Your task to perform on an android device: remove spam from my inbox in the gmail app Image 0: 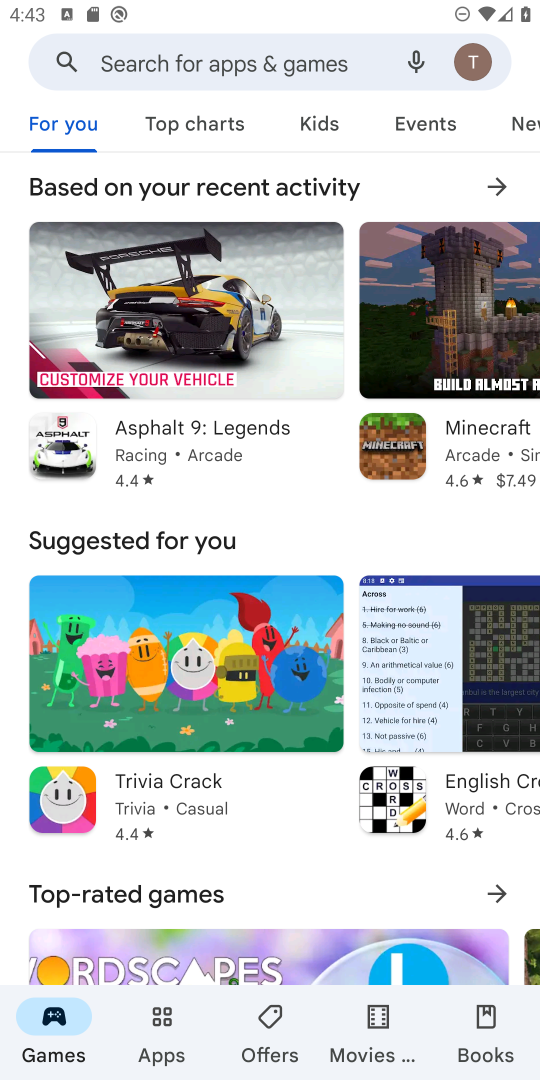
Step 0: press home button
Your task to perform on an android device: remove spam from my inbox in the gmail app Image 1: 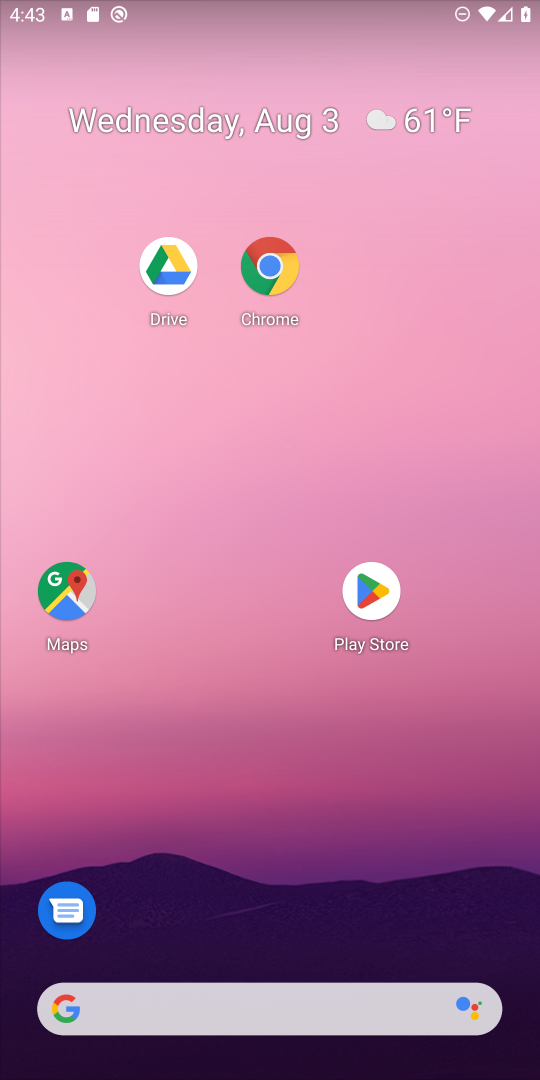
Step 1: drag from (366, 971) to (496, 41)
Your task to perform on an android device: remove spam from my inbox in the gmail app Image 2: 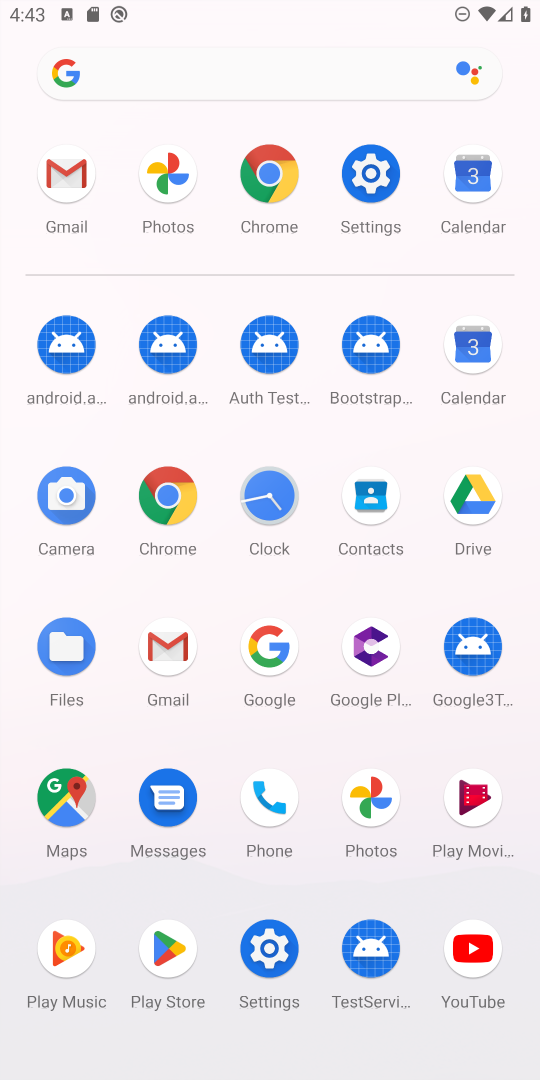
Step 2: click (161, 630)
Your task to perform on an android device: remove spam from my inbox in the gmail app Image 3: 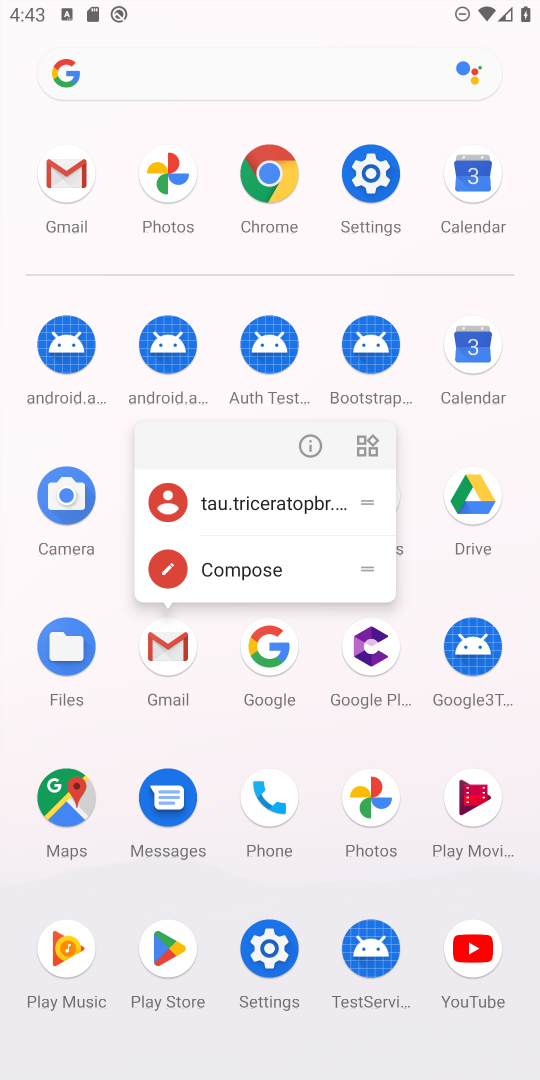
Step 3: click (161, 630)
Your task to perform on an android device: remove spam from my inbox in the gmail app Image 4: 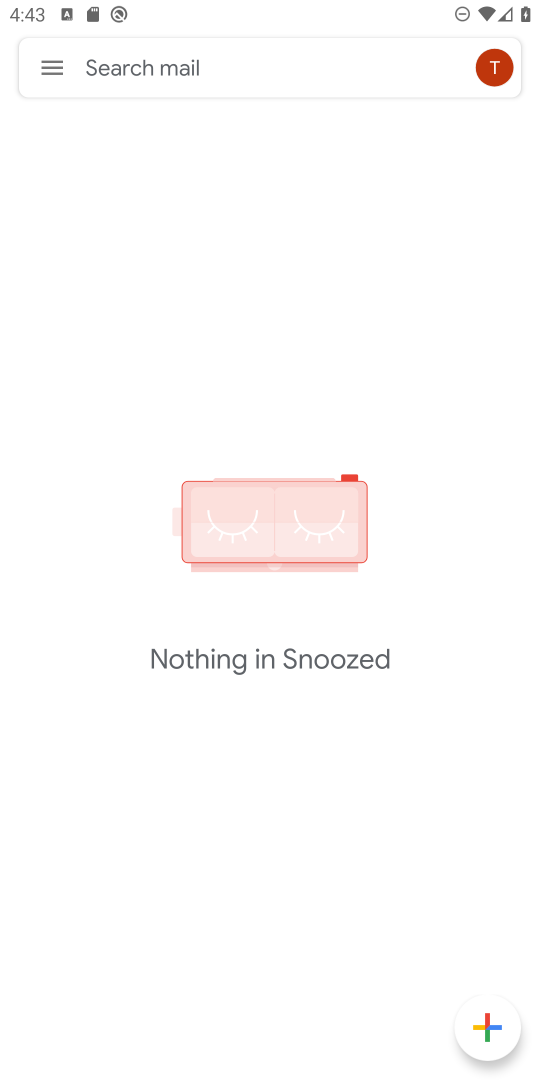
Step 4: click (48, 61)
Your task to perform on an android device: remove spam from my inbox in the gmail app Image 5: 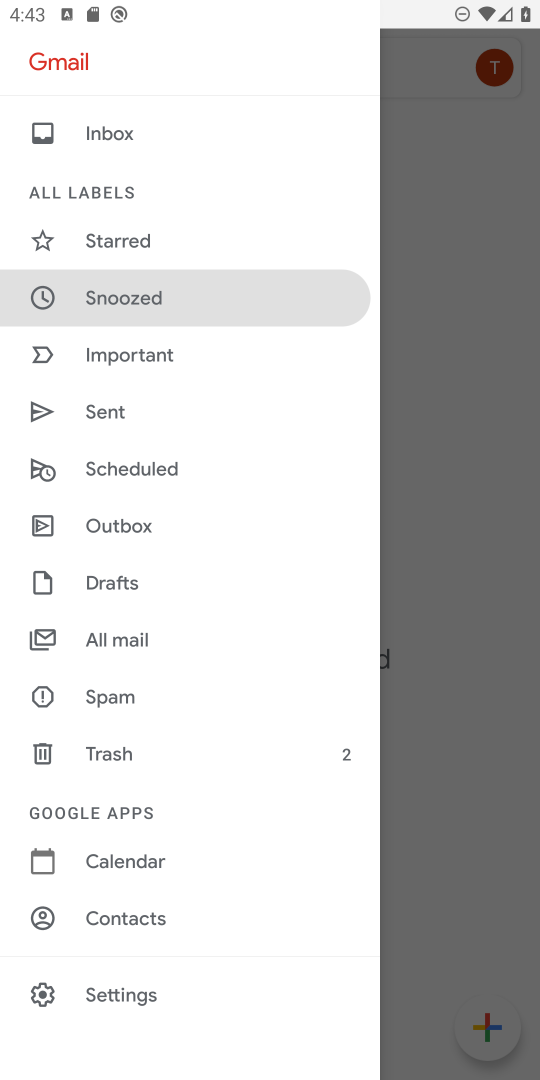
Step 5: click (131, 701)
Your task to perform on an android device: remove spam from my inbox in the gmail app Image 6: 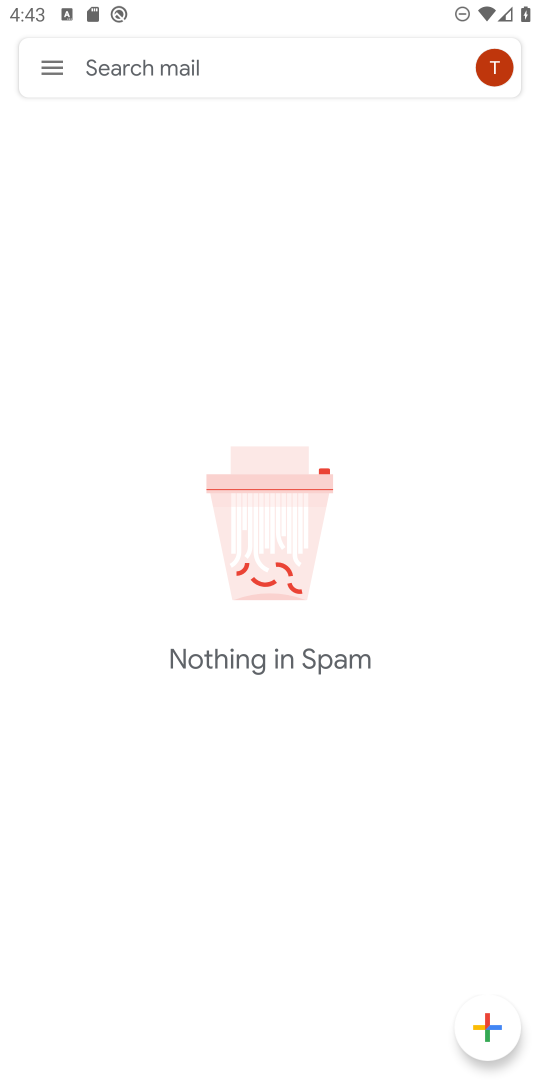
Step 6: task complete